Your task to perform on an android device: Show the shopping cart on costco.com. Image 0: 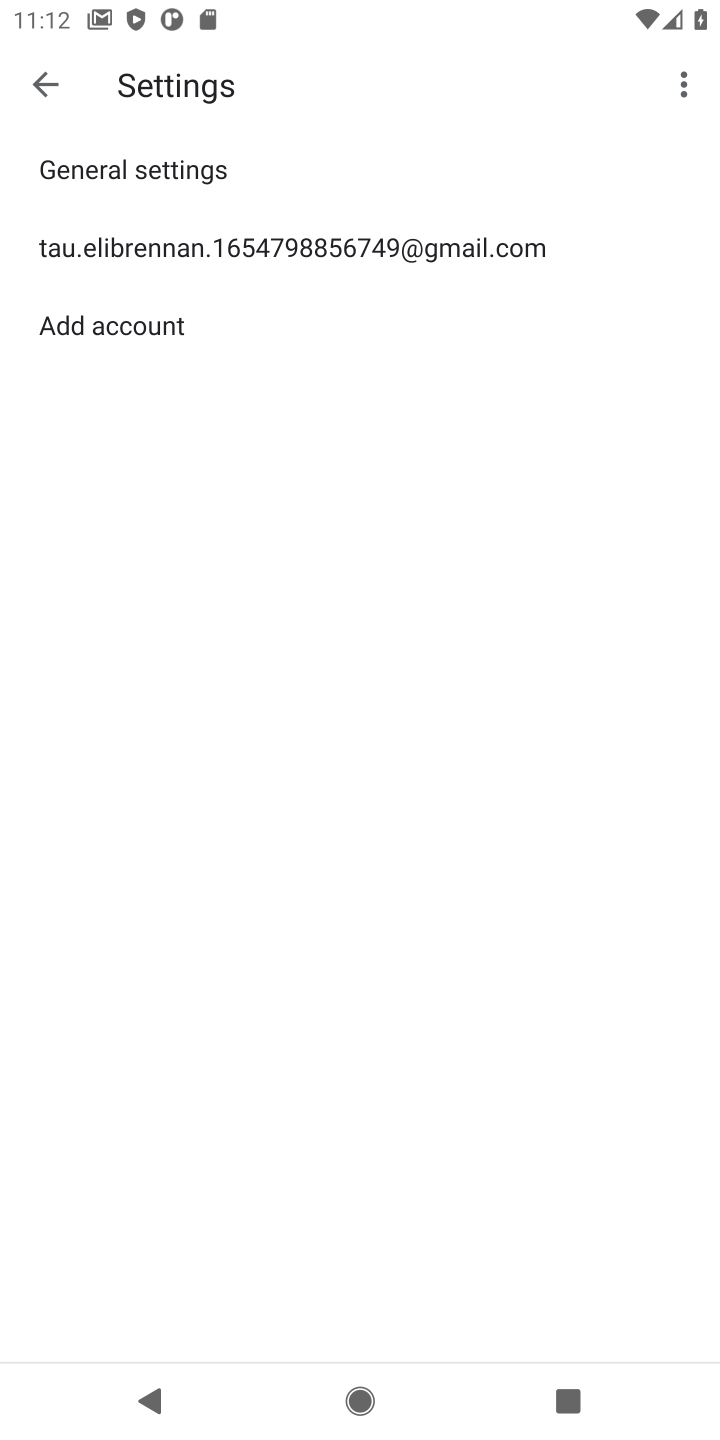
Step 0: press home button
Your task to perform on an android device: Show the shopping cart on costco.com. Image 1: 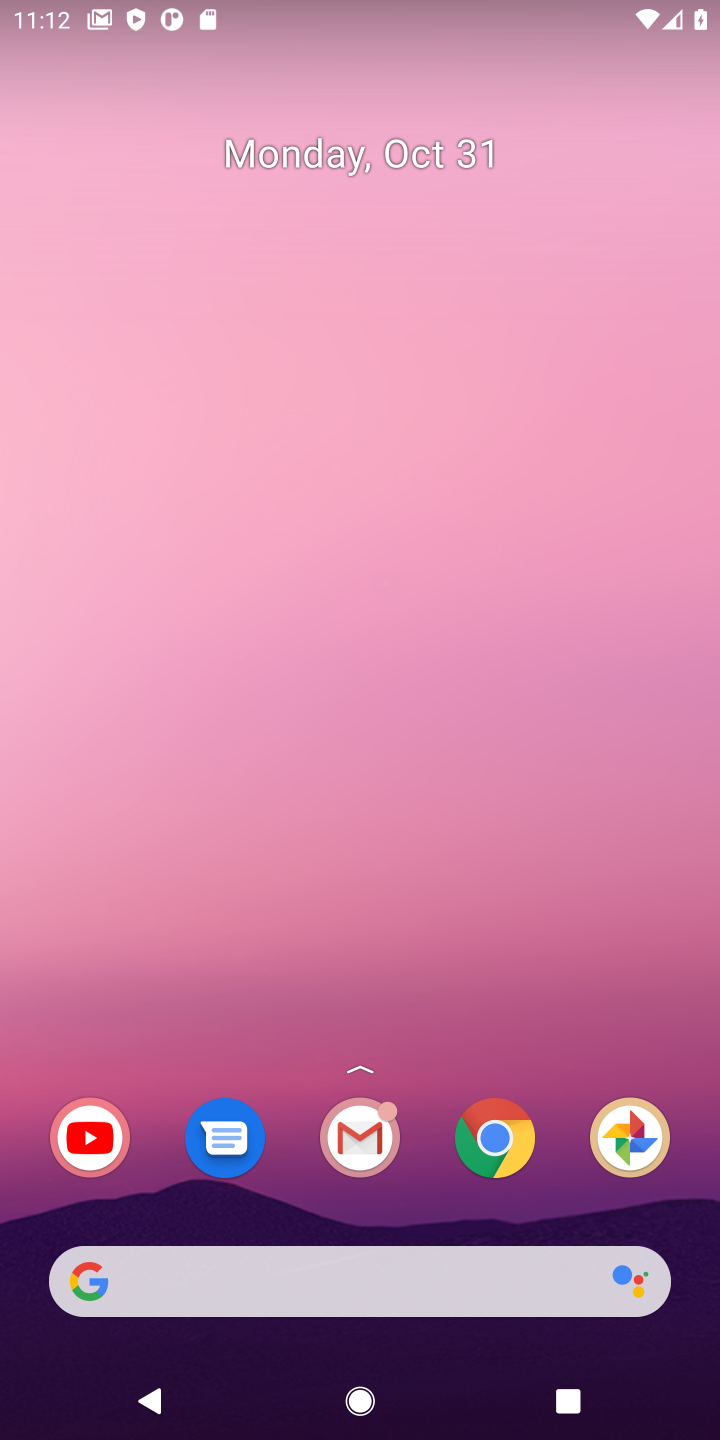
Step 1: click (515, 1133)
Your task to perform on an android device: Show the shopping cart on costco.com. Image 2: 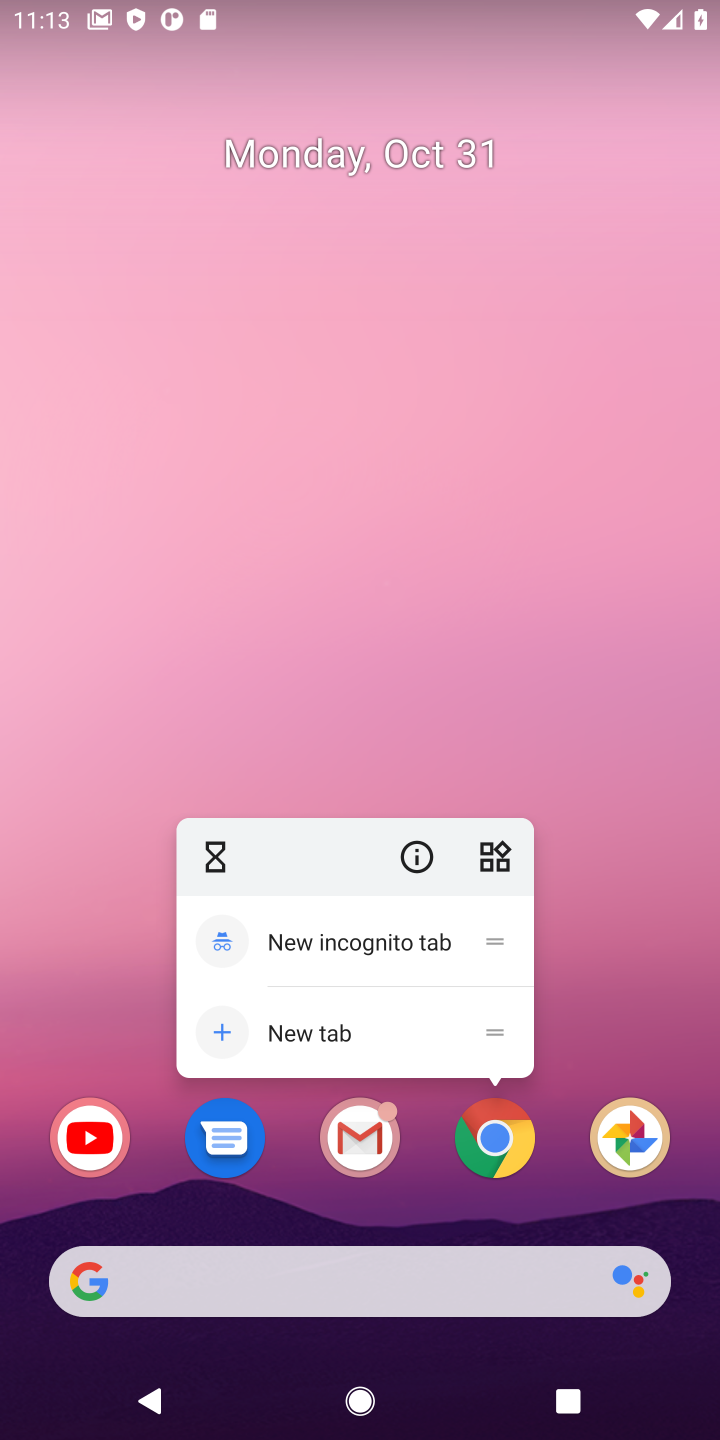
Step 2: click (515, 1133)
Your task to perform on an android device: Show the shopping cart on costco.com. Image 3: 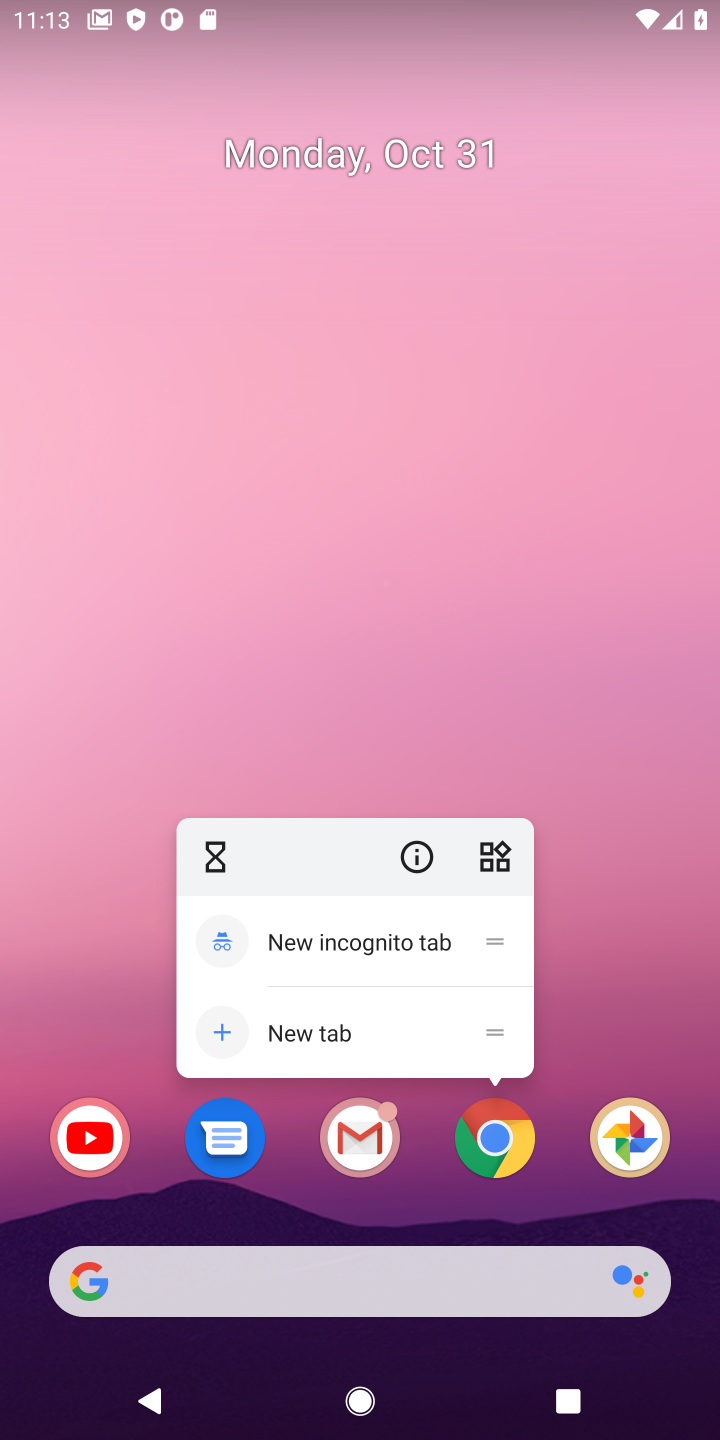
Step 3: click (497, 1132)
Your task to perform on an android device: Show the shopping cart on costco.com. Image 4: 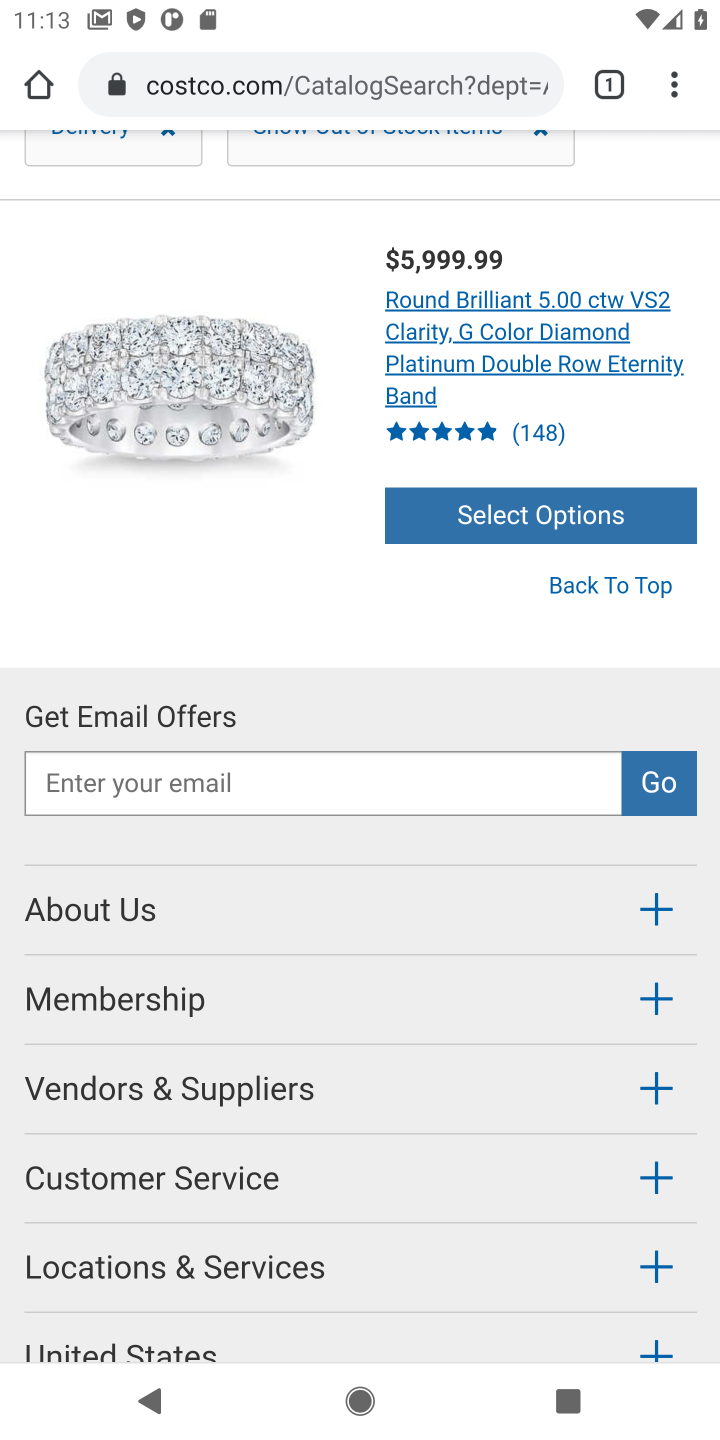
Step 4: drag from (324, 554) to (719, 262)
Your task to perform on an android device: Show the shopping cart on costco.com. Image 5: 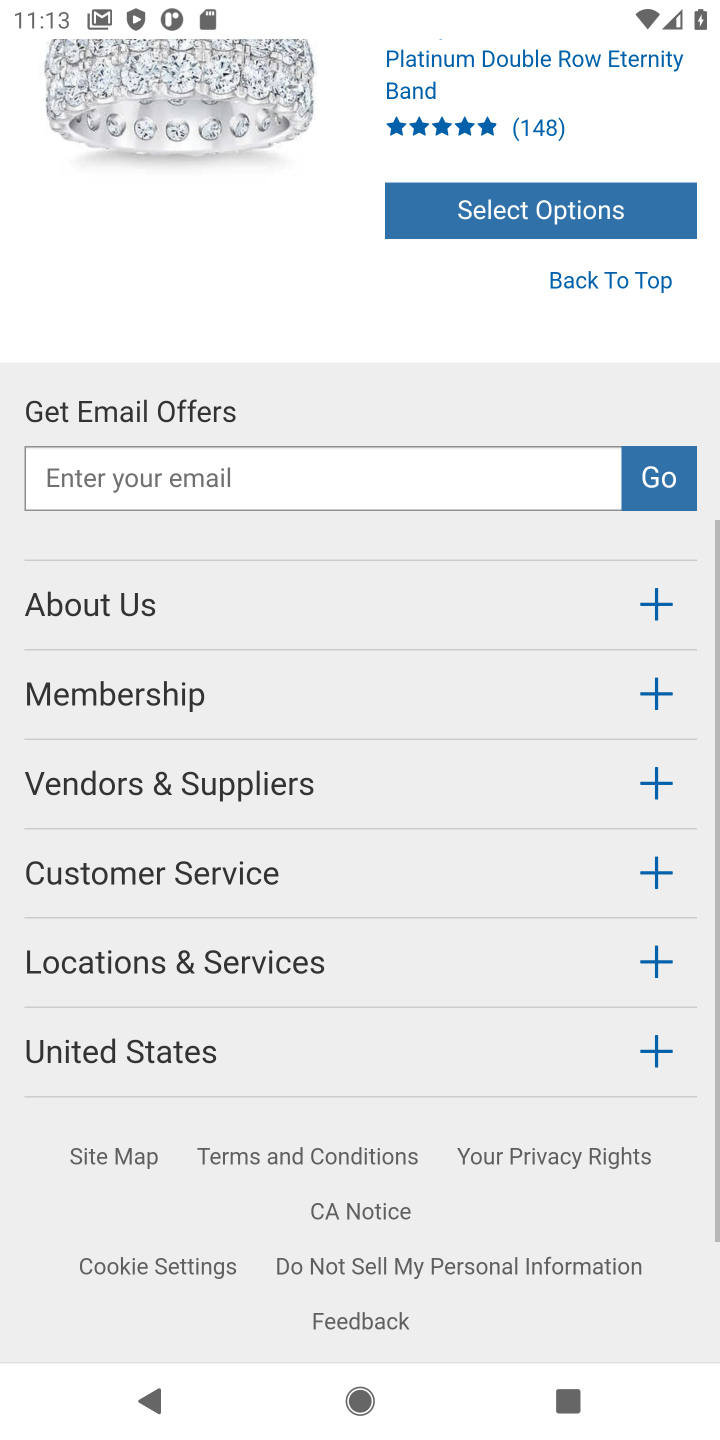
Step 5: drag from (639, 611) to (689, 1014)
Your task to perform on an android device: Show the shopping cart on costco.com. Image 6: 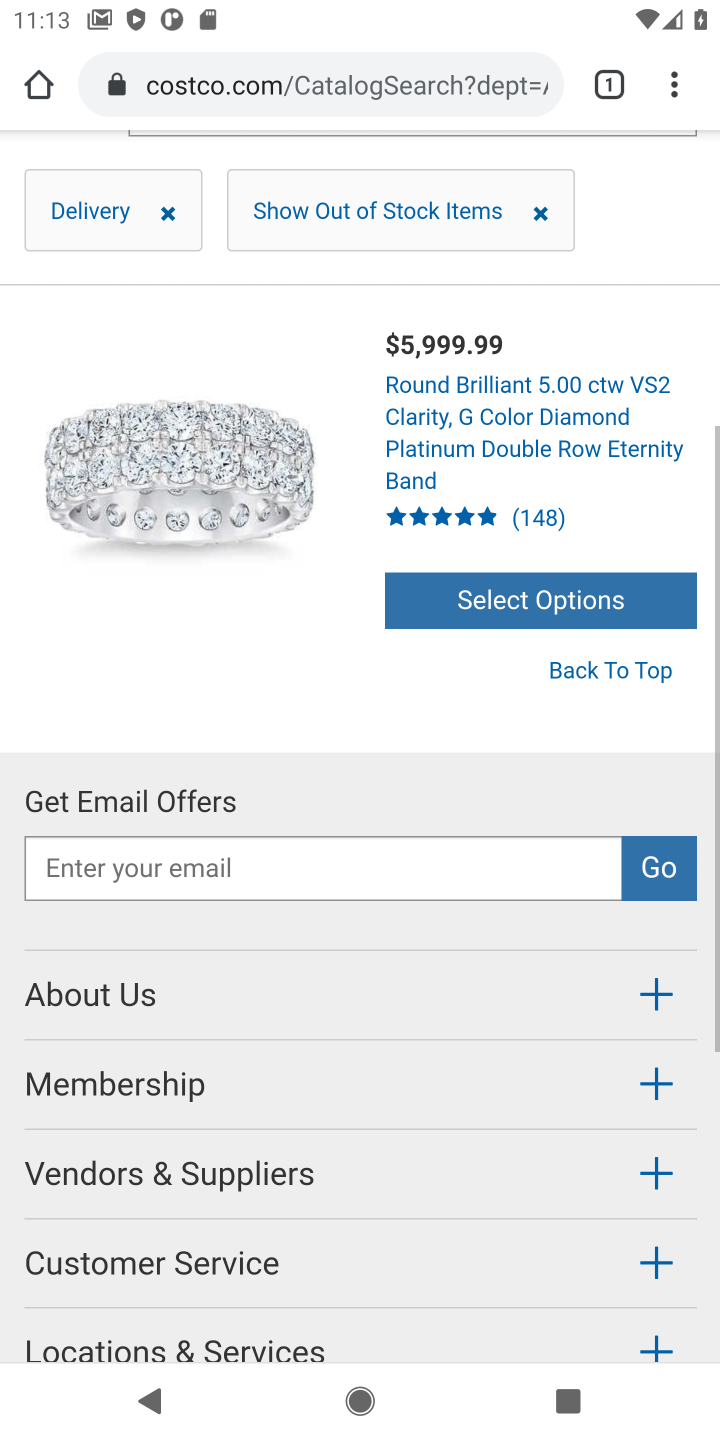
Step 6: click (368, 1363)
Your task to perform on an android device: Show the shopping cart on costco.com. Image 7: 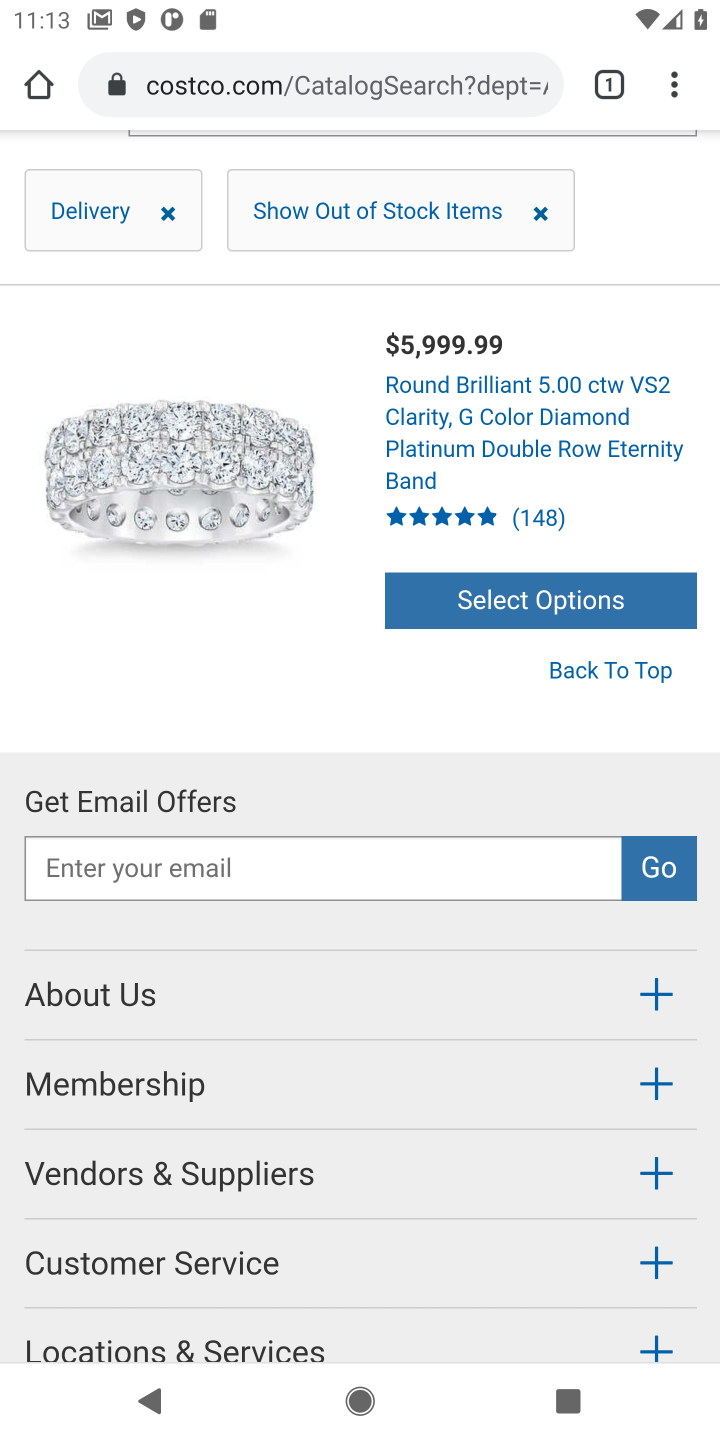
Step 7: click (647, 579)
Your task to perform on an android device: Show the shopping cart on costco.com. Image 8: 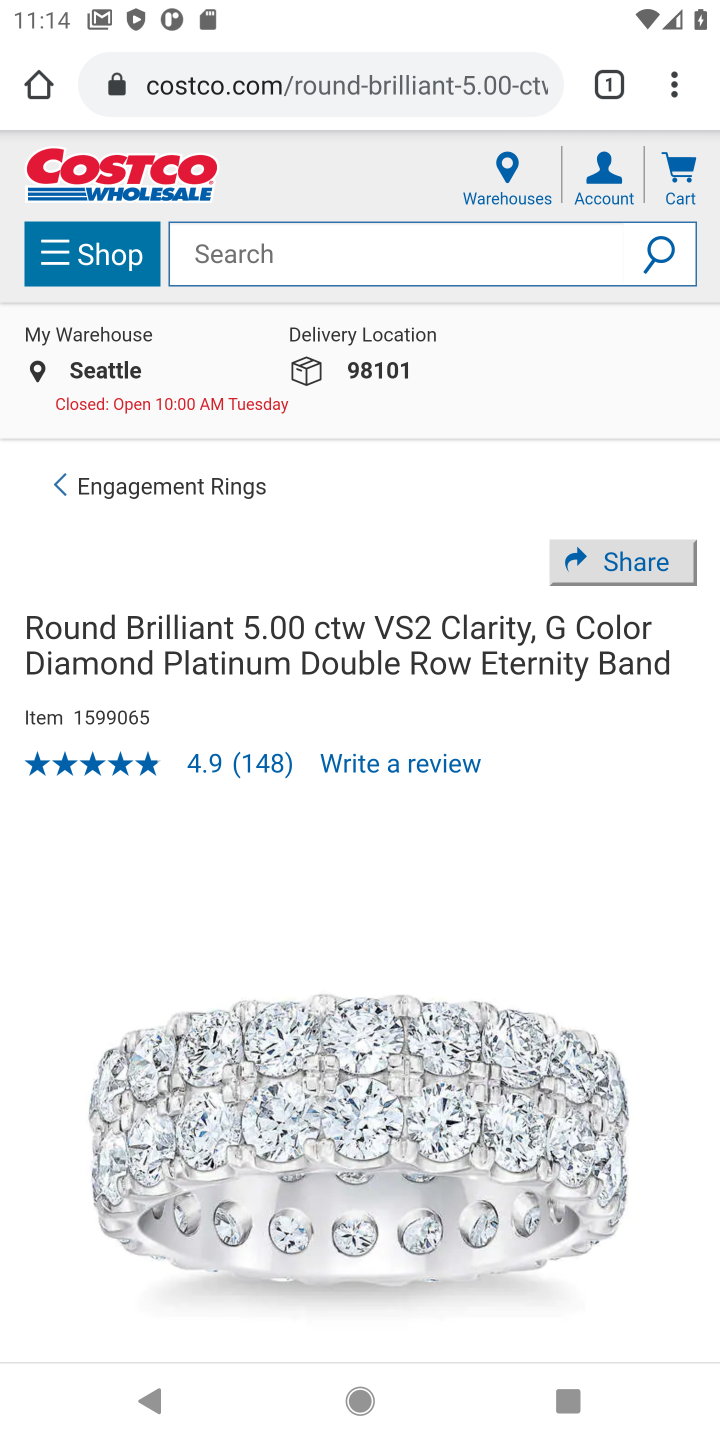
Step 8: click (684, 160)
Your task to perform on an android device: Show the shopping cart on costco.com. Image 9: 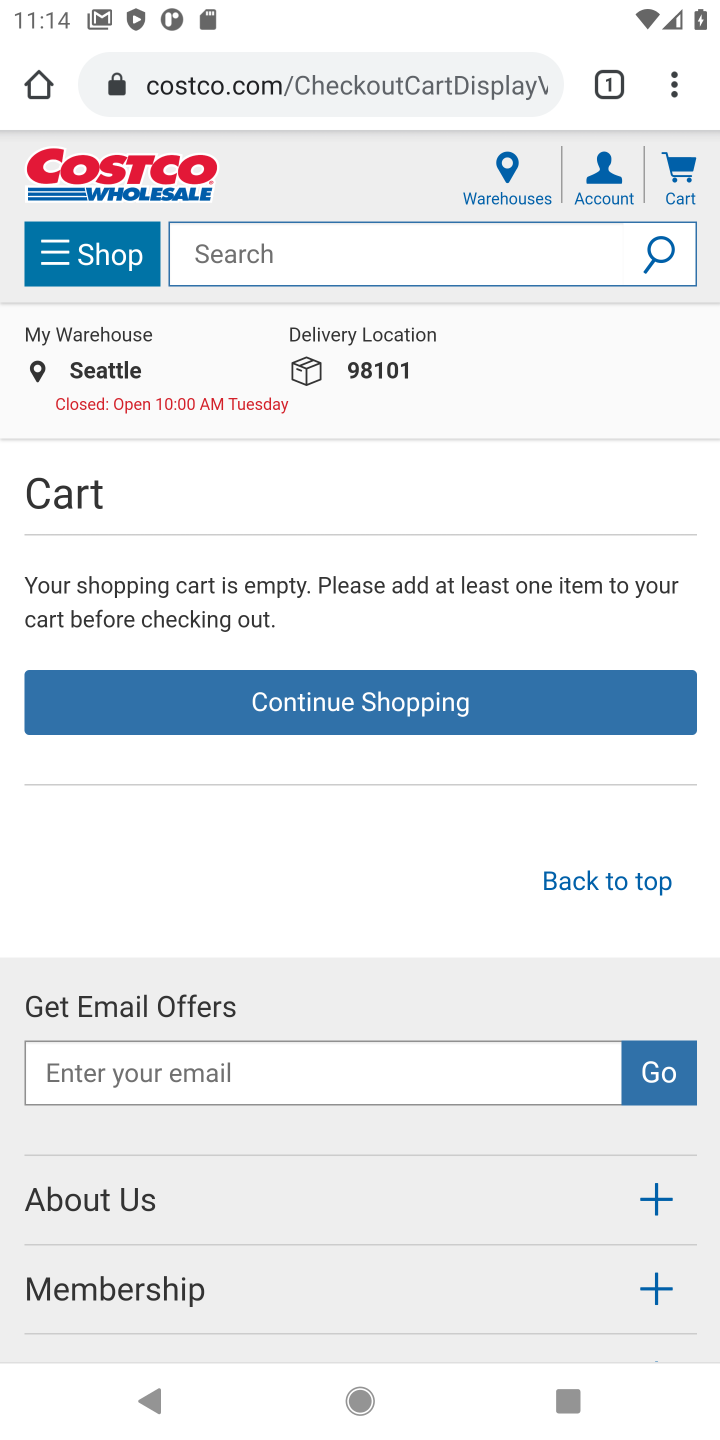
Step 9: task complete